Your task to perform on an android device: Show me popular videos on Youtube Image 0: 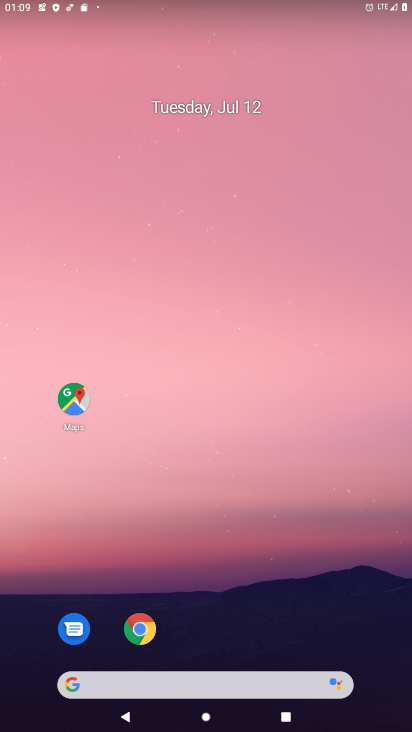
Step 0: drag from (38, 706) to (376, 8)
Your task to perform on an android device: Show me popular videos on Youtube Image 1: 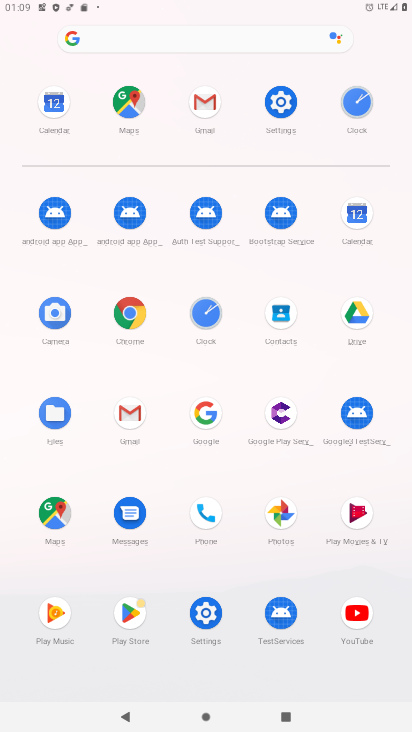
Step 1: click (362, 620)
Your task to perform on an android device: Show me popular videos on Youtube Image 2: 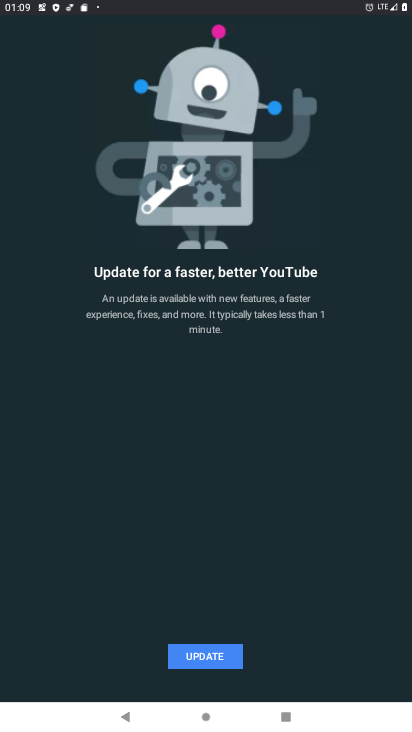
Step 2: click (202, 643)
Your task to perform on an android device: Show me popular videos on Youtube Image 3: 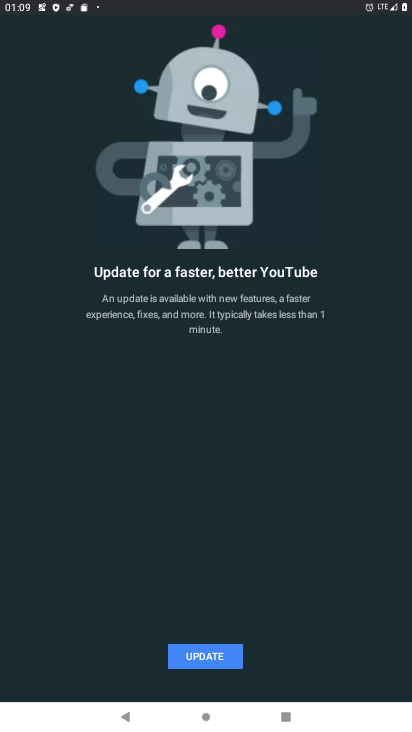
Step 3: click (214, 656)
Your task to perform on an android device: Show me popular videos on Youtube Image 4: 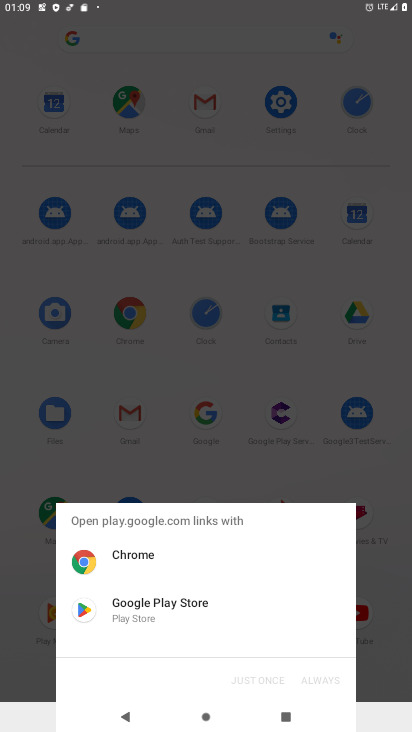
Step 4: click (164, 615)
Your task to perform on an android device: Show me popular videos on Youtube Image 5: 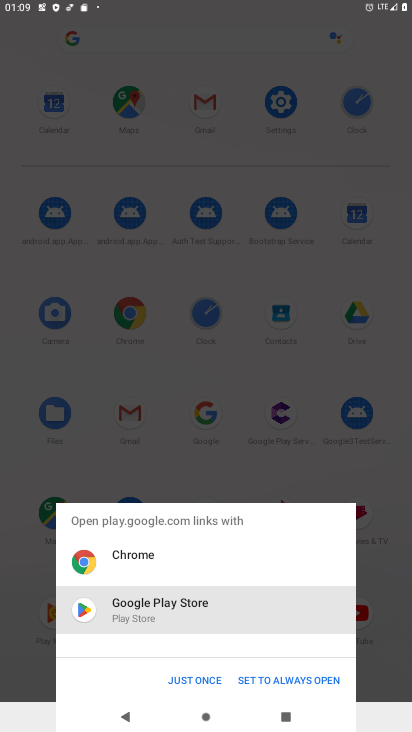
Step 5: click (193, 677)
Your task to perform on an android device: Show me popular videos on Youtube Image 6: 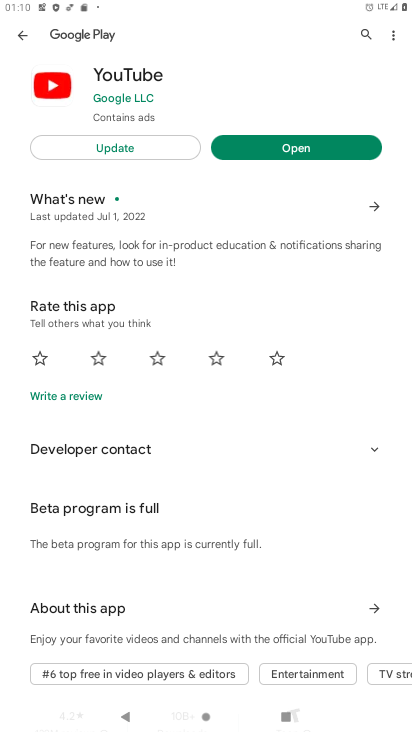
Step 6: click (282, 146)
Your task to perform on an android device: Show me popular videos on Youtube Image 7: 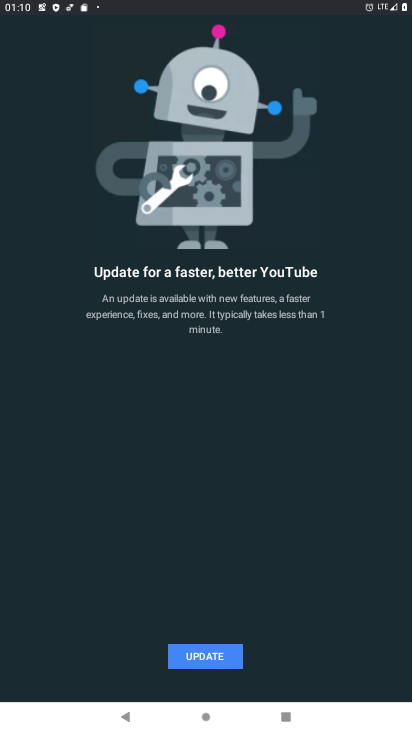
Step 7: task complete